Your task to perform on an android device: What's the weather? Image 0: 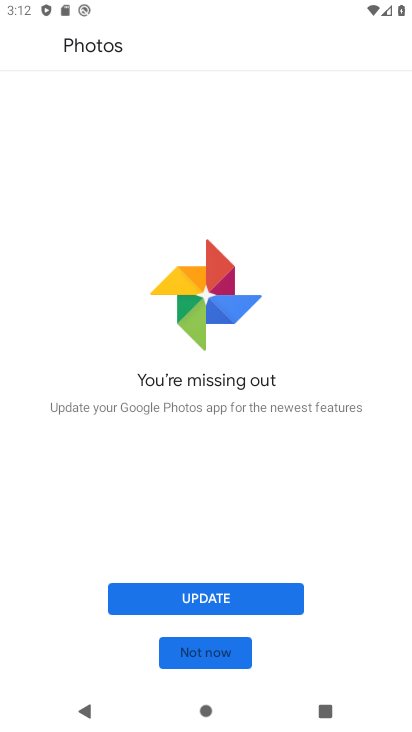
Step 0: press home button
Your task to perform on an android device: What's the weather? Image 1: 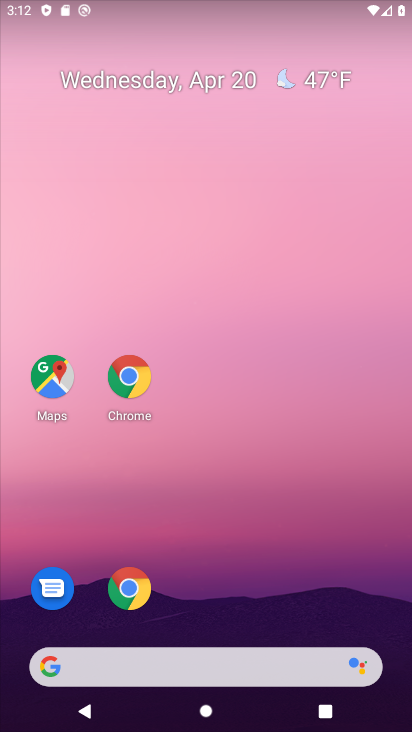
Step 1: drag from (263, 308) to (209, 5)
Your task to perform on an android device: What's the weather? Image 2: 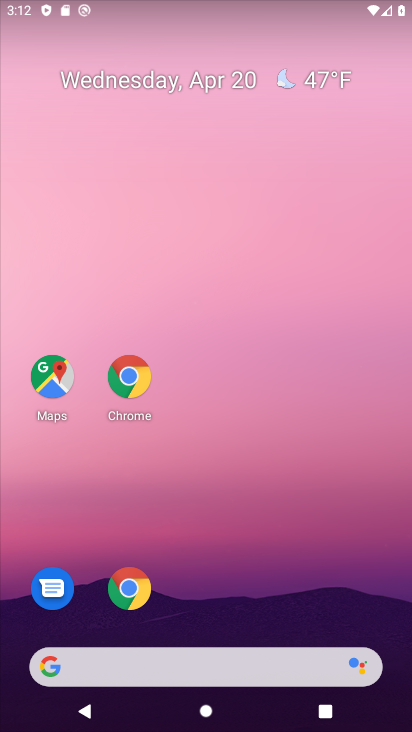
Step 2: drag from (163, 596) to (120, 2)
Your task to perform on an android device: What's the weather? Image 3: 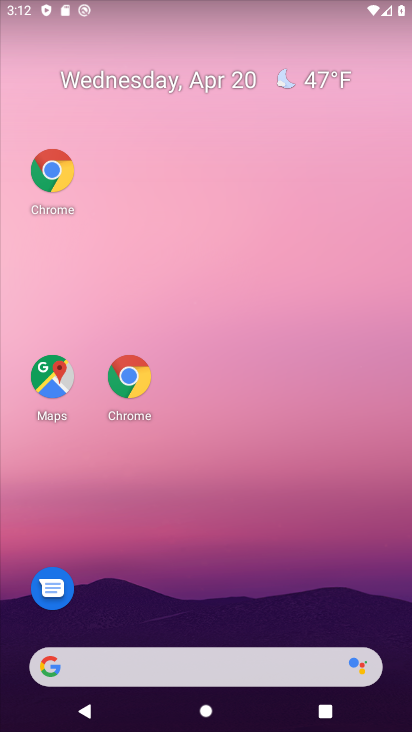
Step 3: drag from (178, 621) to (184, 2)
Your task to perform on an android device: What's the weather? Image 4: 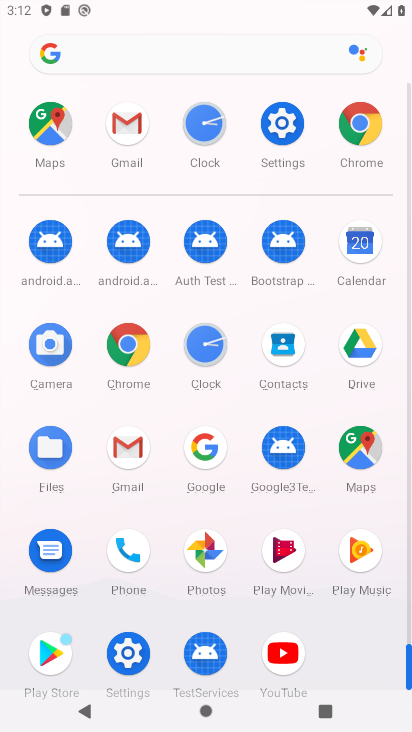
Step 4: click (134, 356)
Your task to perform on an android device: What's the weather? Image 5: 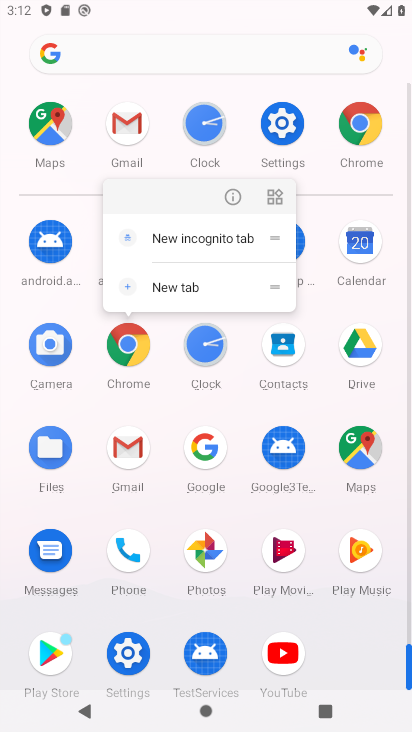
Step 5: click (134, 356)
Your task to perform on an android device: What's the weather? Image 6: 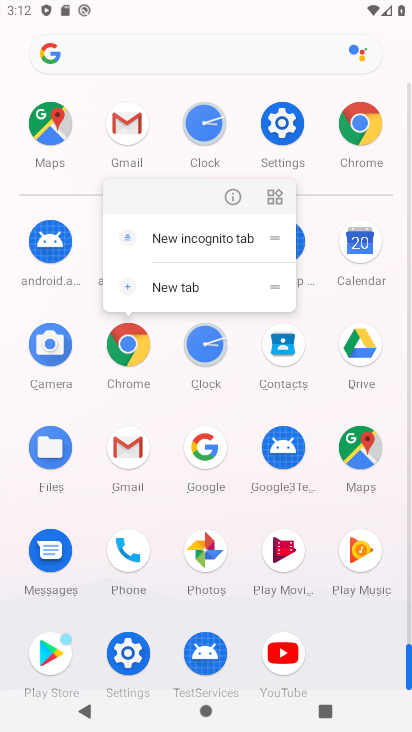
Step 6: click (134, 356)
Your task to perform on an android device: What's the weather? Image 7: 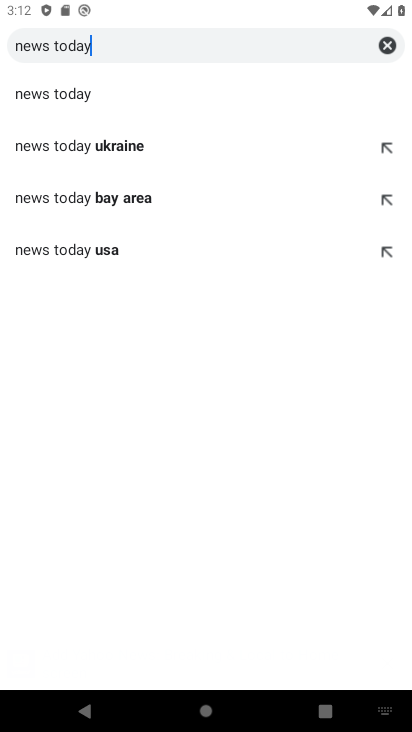
Step 7: click (384, 43)
Your task to perform on an android device: What's the weather? Image 8: 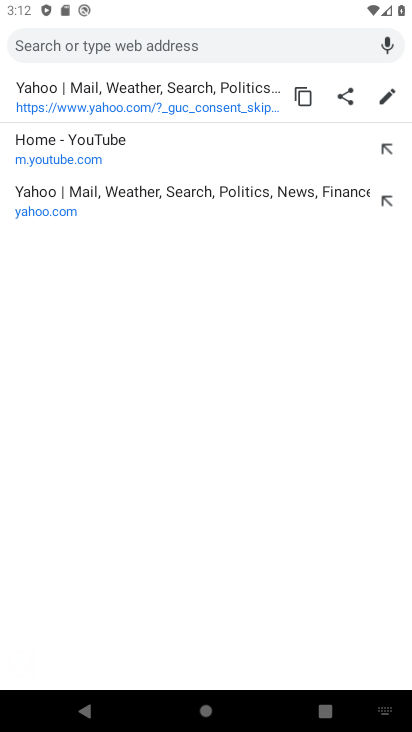
Step 8: type "weather"
Your task to perform on an android device: What's the weather? Image 9: 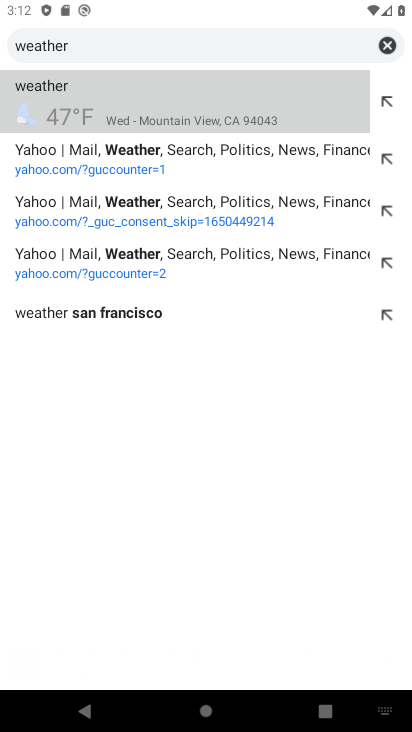
Step 9: click (291, 95)
Your task to perform on an android device: What's the weather? Image 10: 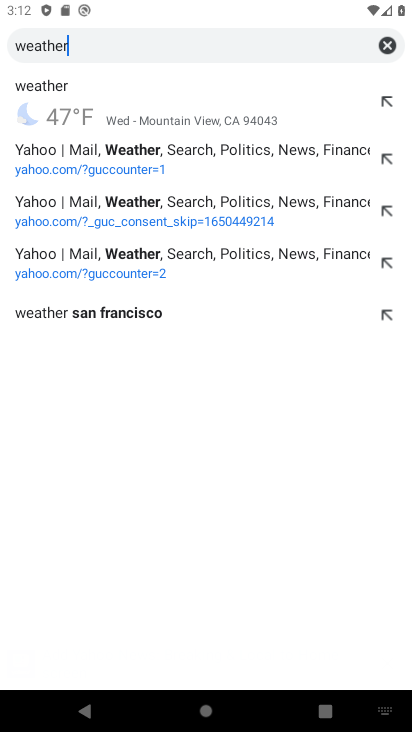
Step 10: click (330, 111)
Your task to perform on an android device: What's the weather? Image 11: 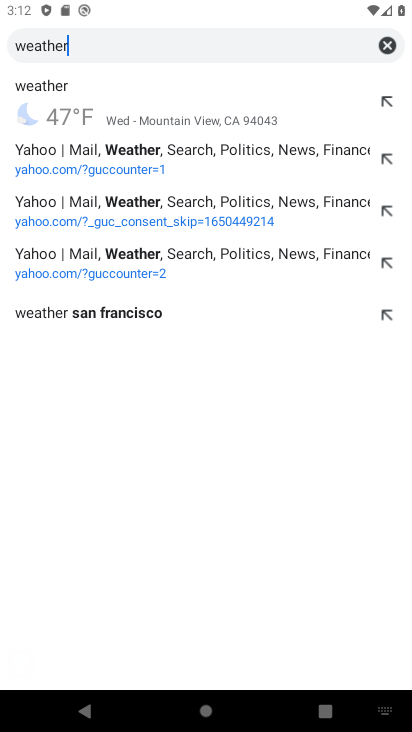
Step 11: click (330, 111)
Your task to perform on an android device: What's the weather? Image 12: 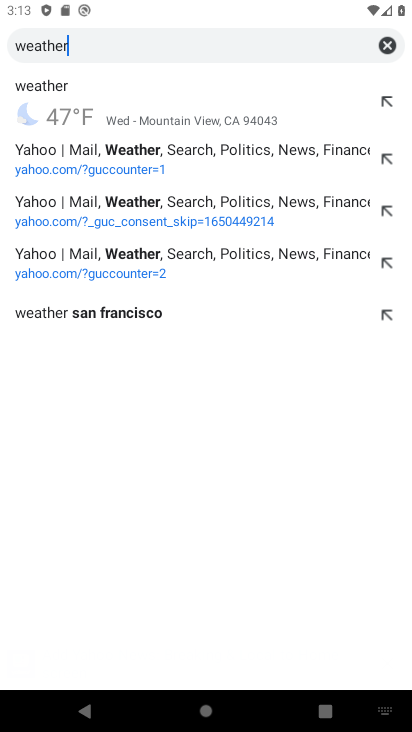
Step 12: click (164, 124)
Your task to perform on an android device: What's the weather? Image 13: 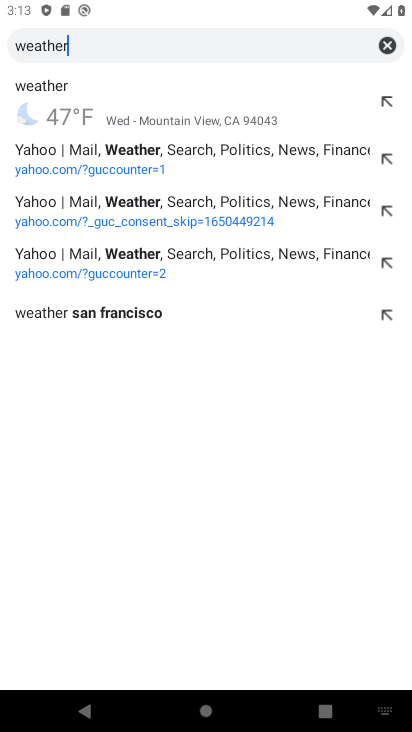
Step 13: click (139, 109)
Your task to perform on an android device: What's the weather? Image 14: 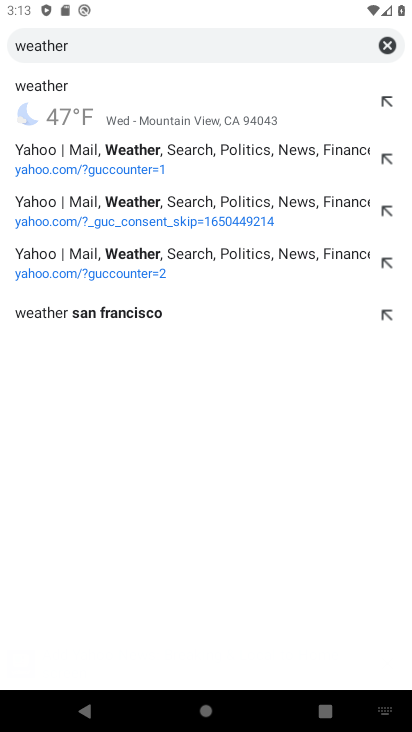
Step 14: click (36, 89)
Your task to perform on an android device: What's the weather? Image 15: 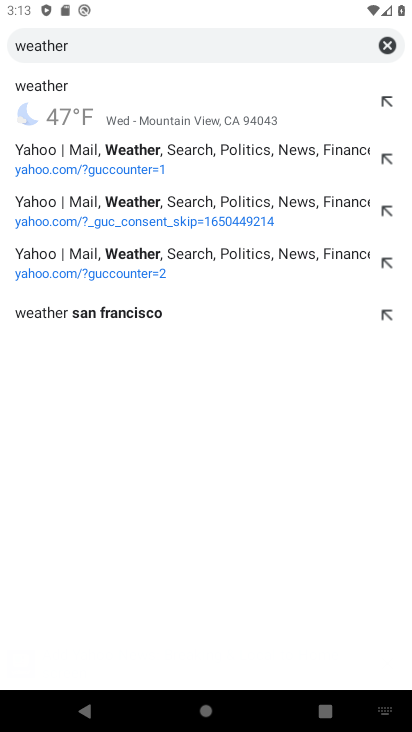
Step 15: click (276, 116)
Your task to perform on an android device: What's the weather? Image 16: 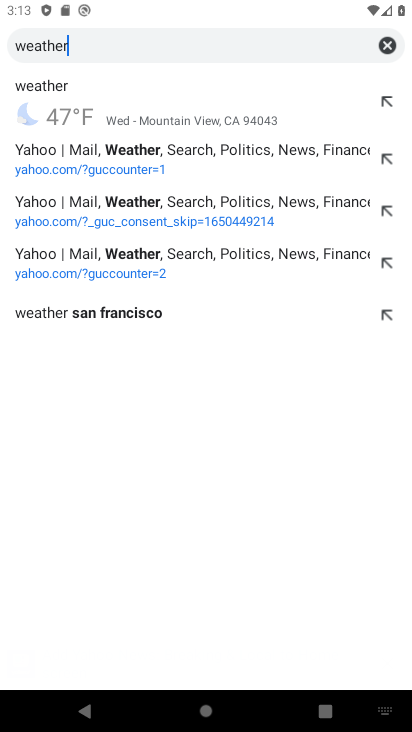
Step 16: click (276, 116)
Your task to perform on an android device: What's the weather? Image 17: 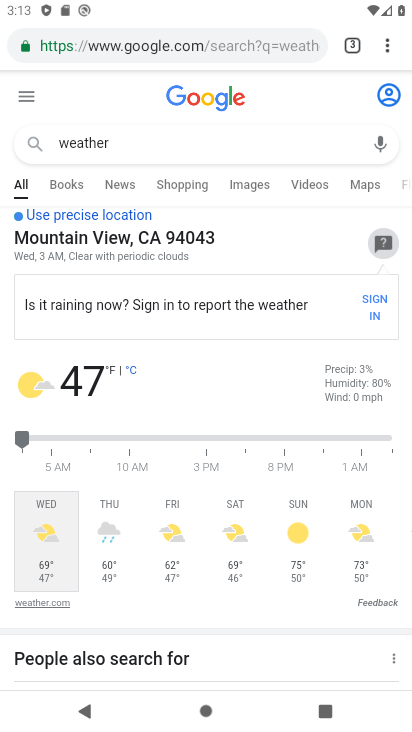
Step 17: task complete